Your task to perform on an android device: show emergency info Image 0: 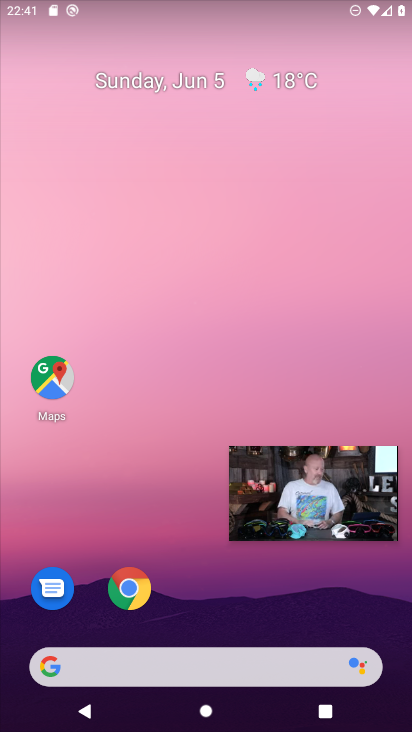
Step 0: drag from (203, 586) to (230, 195)
Your task to perform on an android device: show emergency info Image 1: 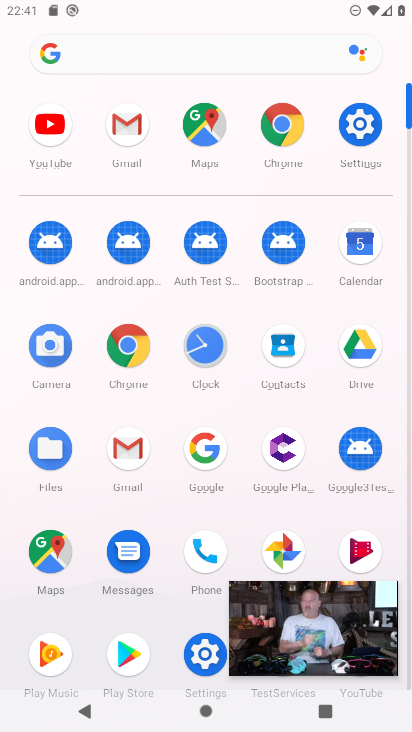
Step 1: click (366, 139)
Your task to perform on an android device: show emergency info Image 2: 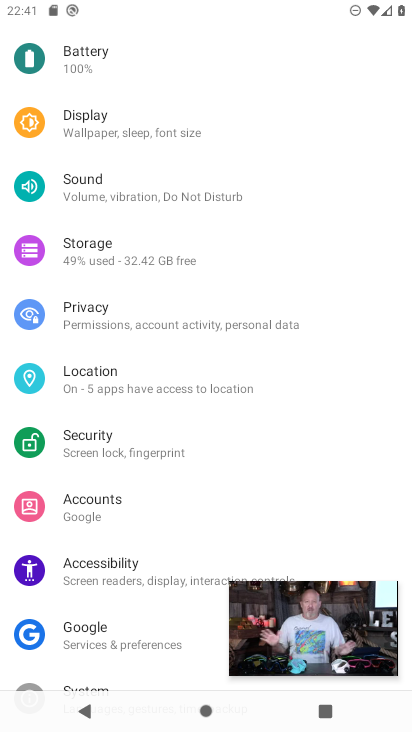
Step 2: drag from (341, 423) to (359, 262)
Your task to perform on an android device: show emergency info Image 3: 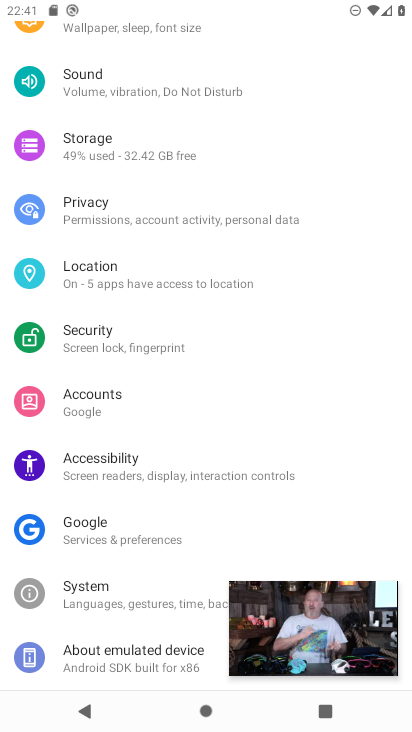
Step 3: drag from (355, 461) to (359, 310)
Your task to perform on an android device: show emergency info Image 4: 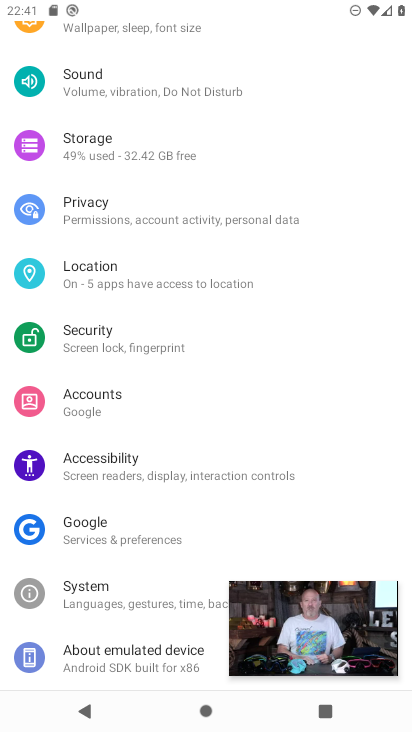
Step 4: click (126, 660)
Your task to perform on an android device: show emergency info Image 5: 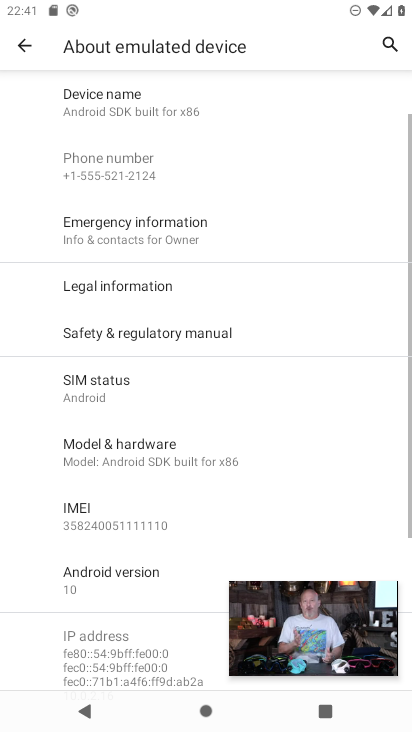
Step 5: click (196, 248)
Your task to perform on an android device: show emergency info Image 6: 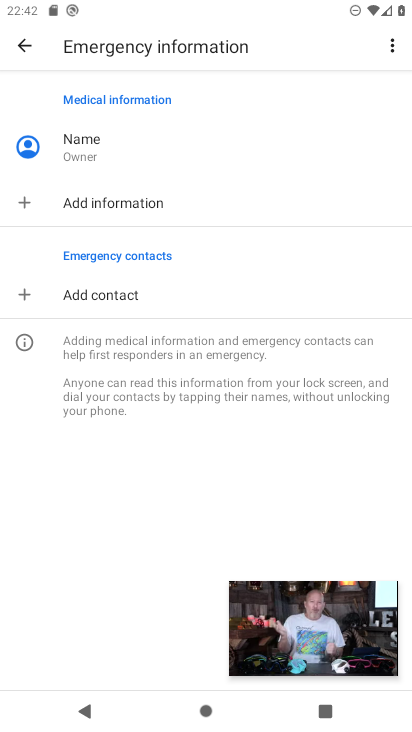
Step 6: task complete